Your task to perform on an android device: Search for "acer predator" on bestbuy, select the first entry, and add it to the cart. Image 0: 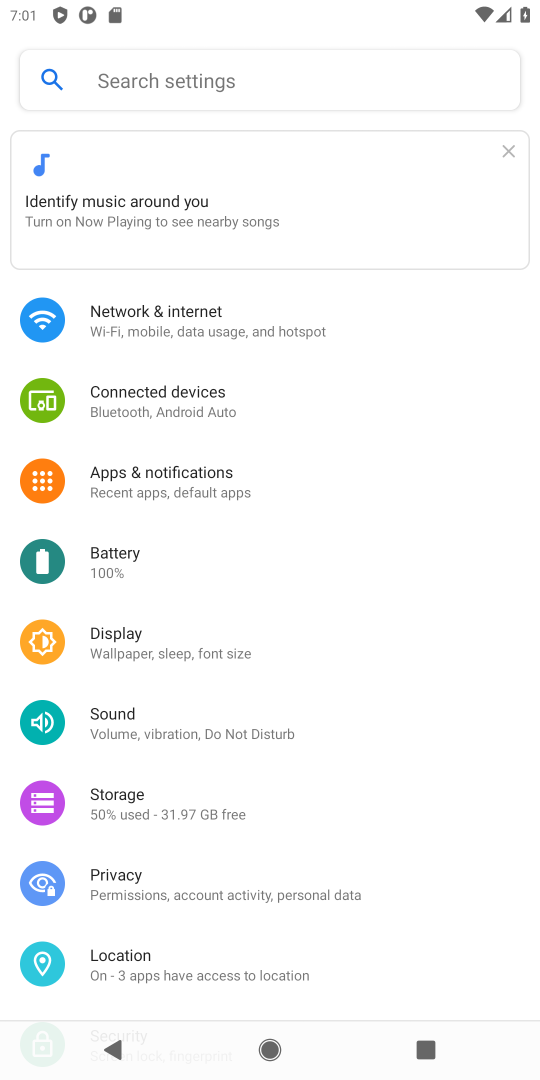
Step 0: press home button
Your task to perform on an android device: Search for "acer predator" on bestbuy, select the first entry, and add it to the cart. Image 1: 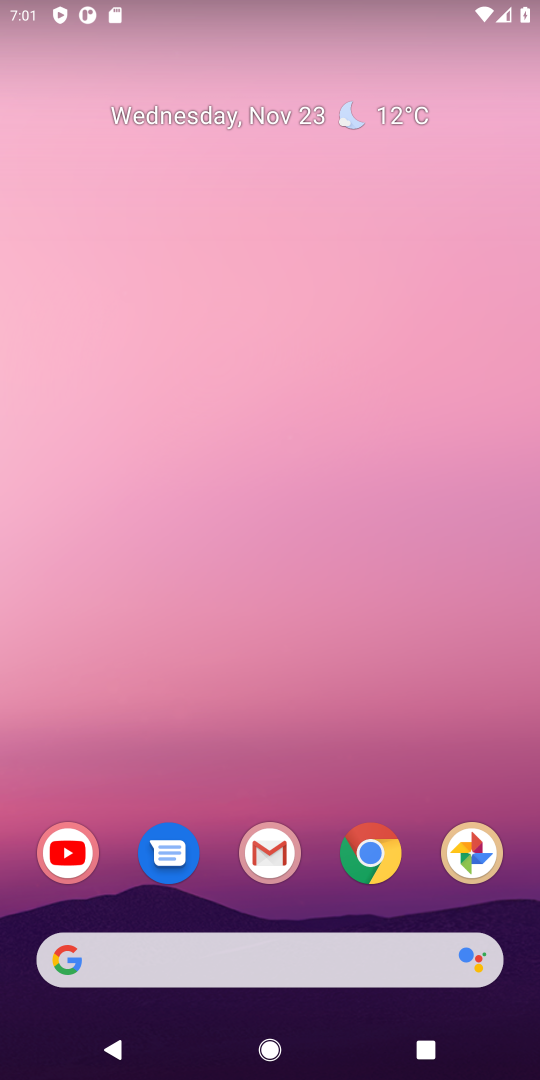
Step 1: click (366, 855)
Your task to perform on an android device: Search for "acer predator" on bestbuy, select the first entry, and add it to the cart. Image 2: 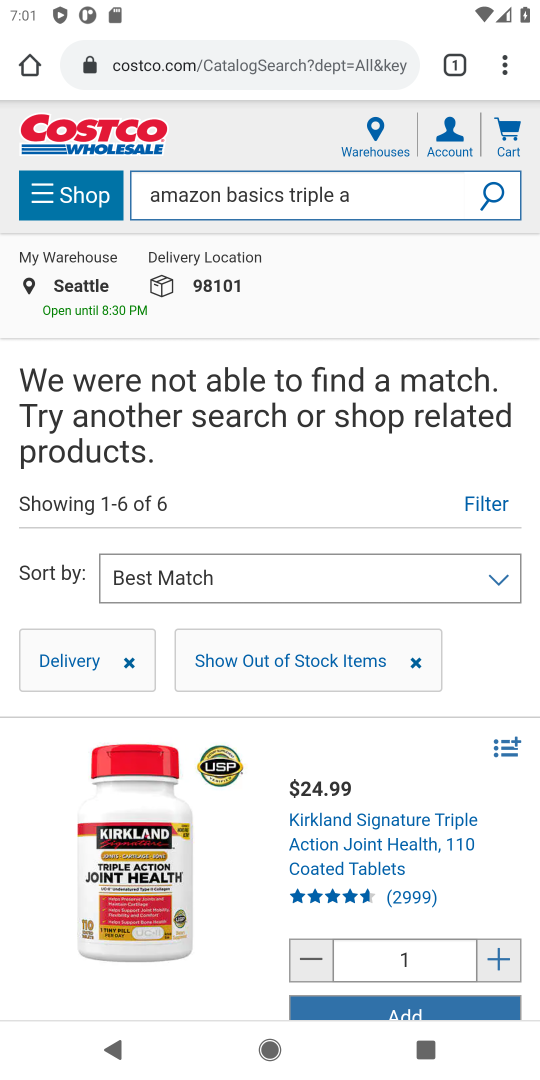
Step 2: click (232, 64)
Your task to perform on an android device: Search for "acer predator" on bestbuy, select the first entry, and add it to the cart. Image 3: 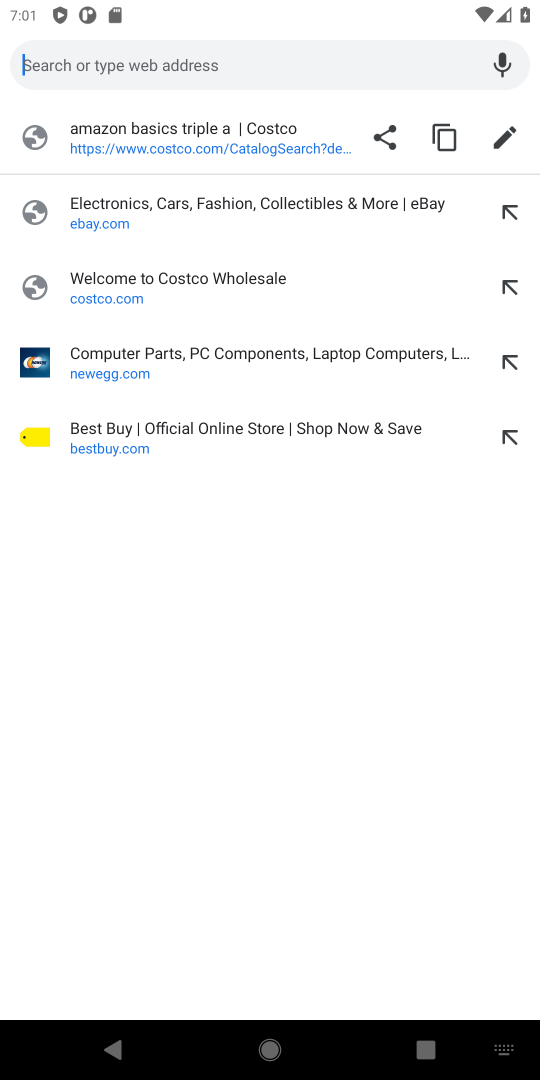
Step 3: click (92, 434)
Your task to perform on an android device: Search for "acer predator" on bestbuy, select the first entry, and add it to the cart. Image 4: 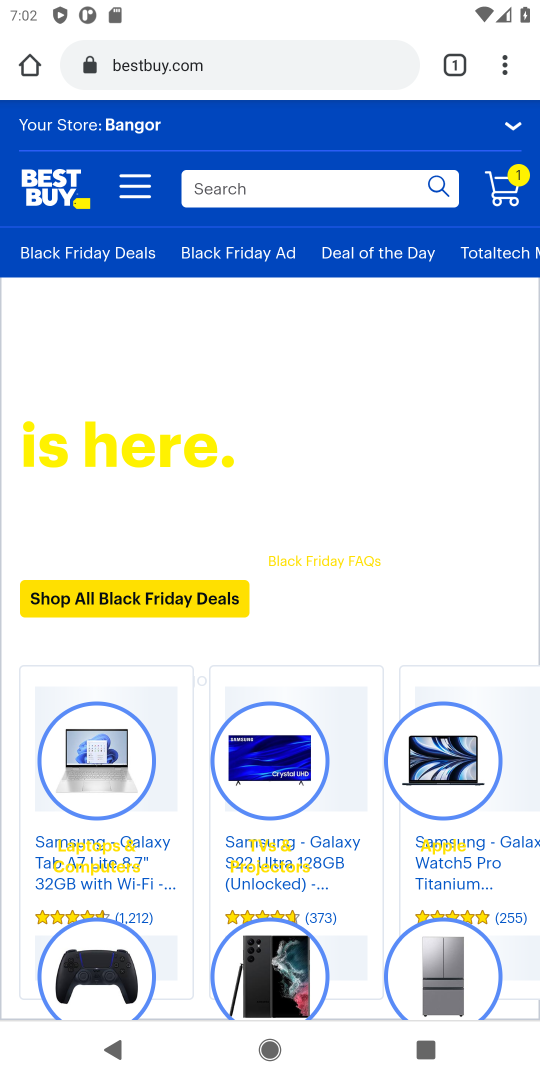
Step 4: click (212, 185)
Your task to perform on an android device: Search for "acer predator" on bestbuy, select the first entry, and add it to the cart. Image 5: 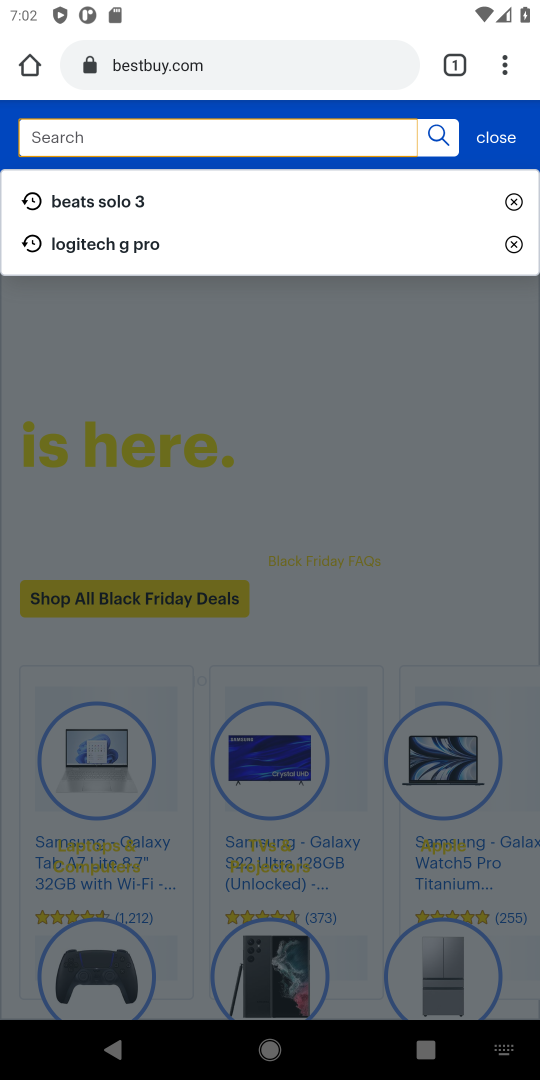
Step 5: type "acer predator"
Your task to perform on an android device: Search for "acer predator" on bestbuy, select the first entry, and add it to the cart. Image 6: 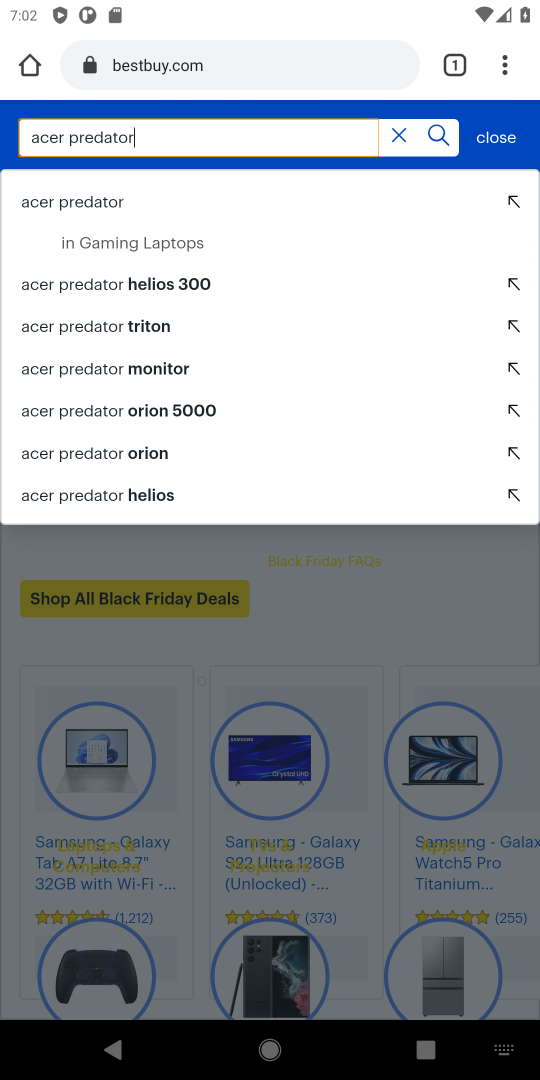
Step 6: click (76, 206)
Your task to perform on an android device: Search for "acer predator" on bestbuy, select the first entry, and add it to the cart. Image 7: 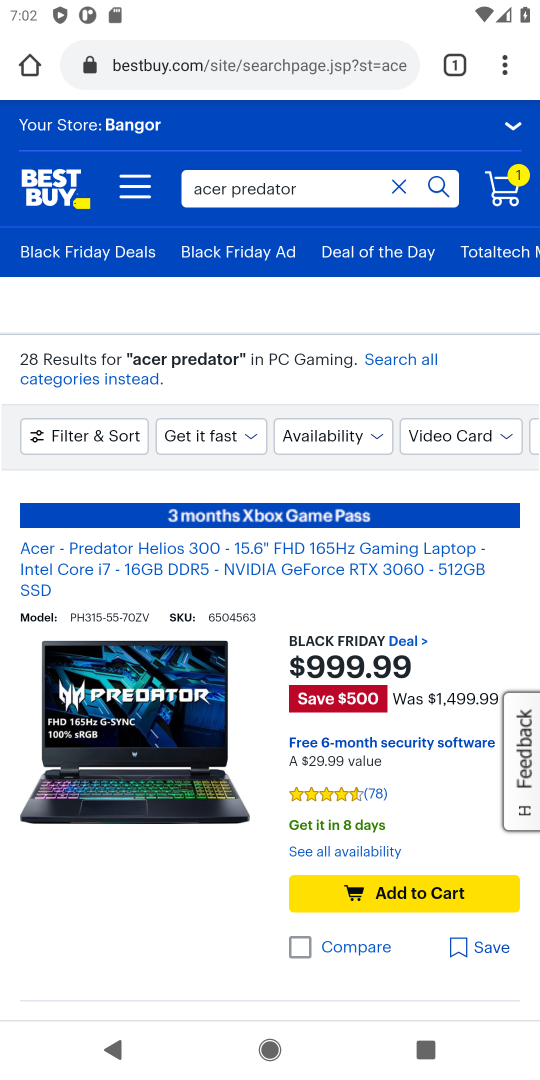
Step 7: click (394, 889)
Your task to perform on an android device: Search for "acer predator" on bestbuy, select the first entry, and add it to the cart. Image 8: 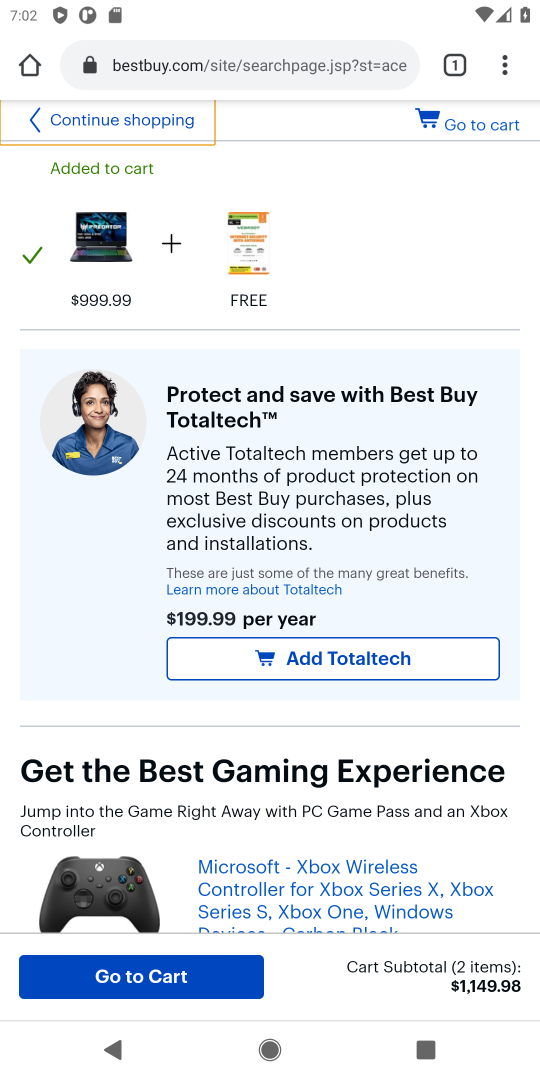
Step 8: task complete